Your task to perform on an android device: Turn off the flashlight Image 0: 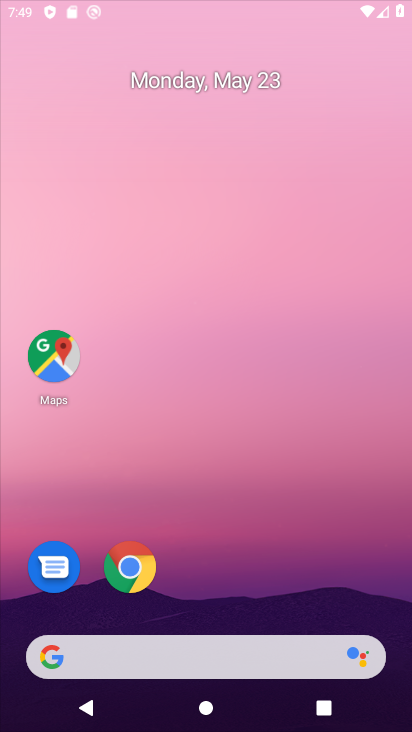
Step 0: drag from (280, 35) to (250, 13)
Your task to perform on an android device: Turn off the flashlight Image 1: 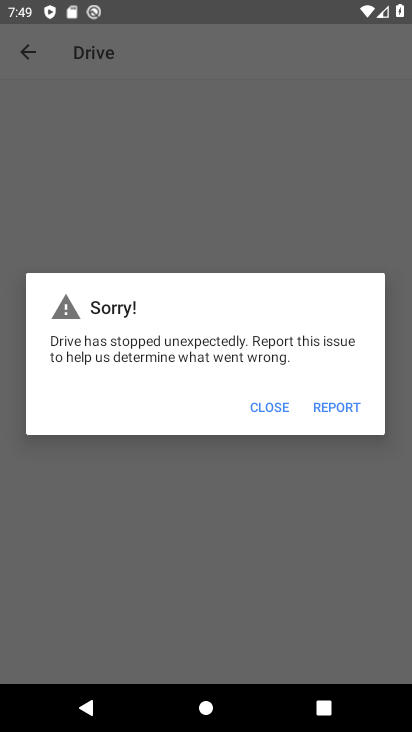
Step 1: press home button
Your task to perform on an android device: Turn off the flashlight Image 2: 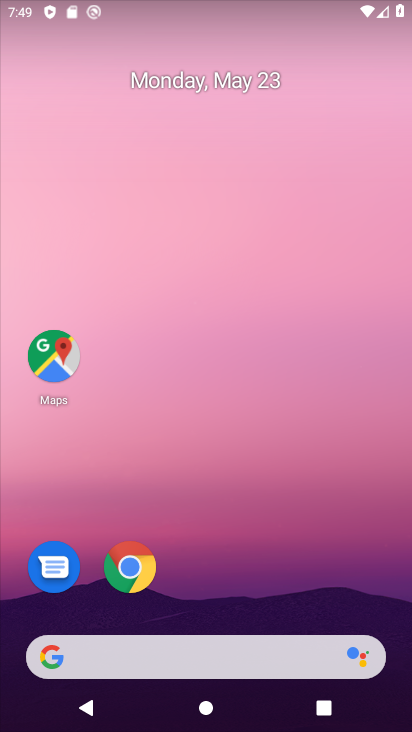
Step 2: drag from (218, 606) to (247, 1)
Your task to perform on an android device: Turn off the flashlight Image 3: 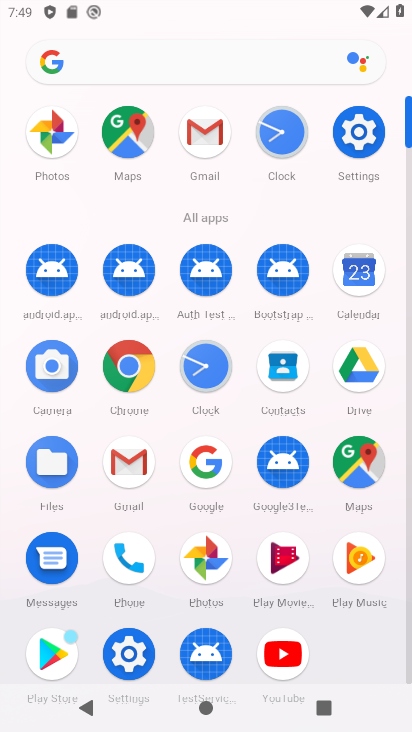
Step 3: click (342, 135)
Your task to perform on an android device: Turn off the flashlight Image 4: 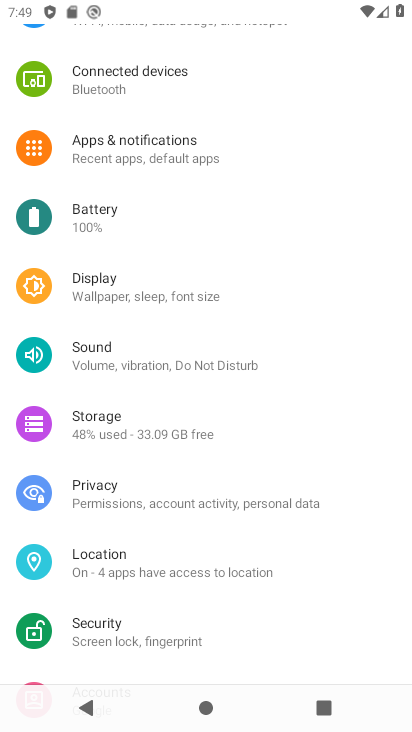
Step 4: drag from (196, 99) to (201, 462)
Your task to perform on an android device: Turn off the flashlight Image 5: 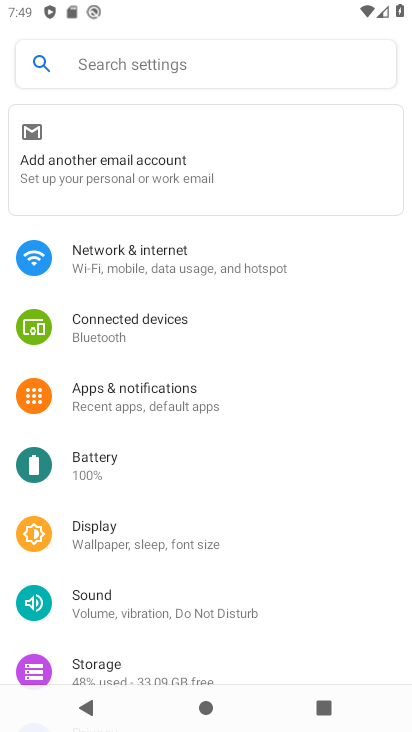
Step 5: click (188, 64)
Your task to perform on an android device: Turn off the flashlight Image 6: 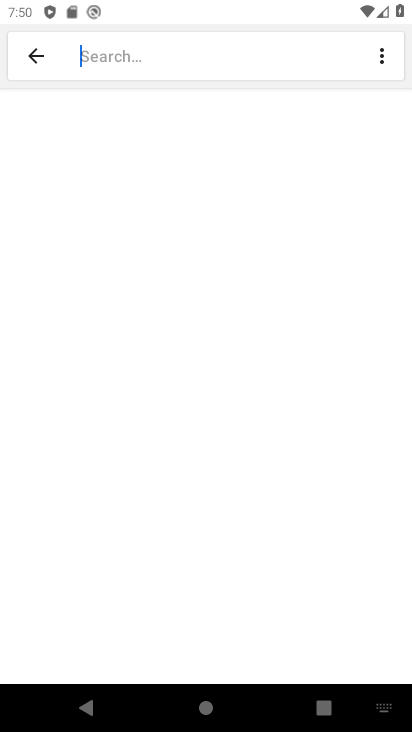
Step 6: type "flashlight"
Your task to perform on an android device: Turn off the flashlight Image 7: 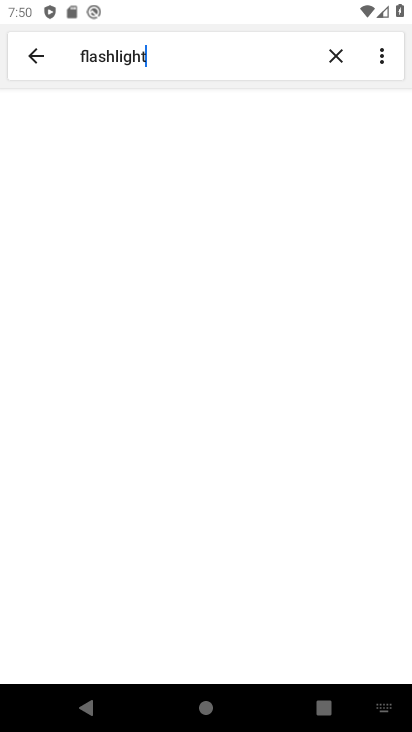
Step 7: click (142, 135)
Your task to perform on an android device: Turn off the flashlight Image 8: 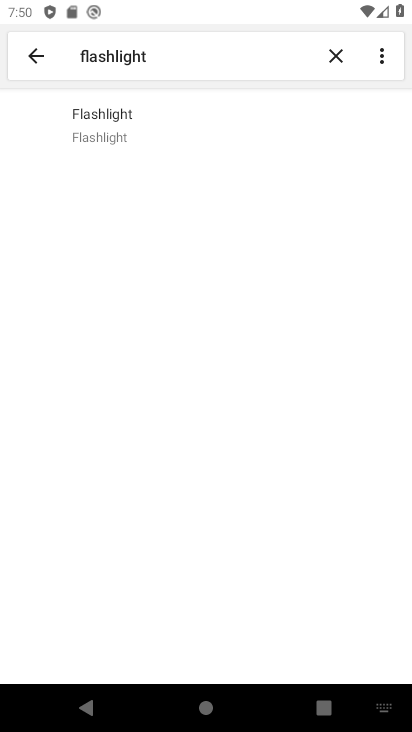
Step 8: click (142, 136)
Your task to perform on an android device: Turn off the flashlight Image 9: 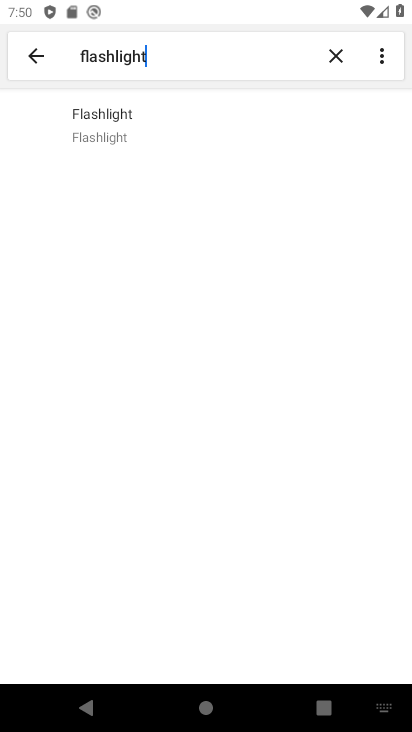
Step 9: click (142, 136)
Your task to perform on an android device: Turn off the flashlight Image 10: 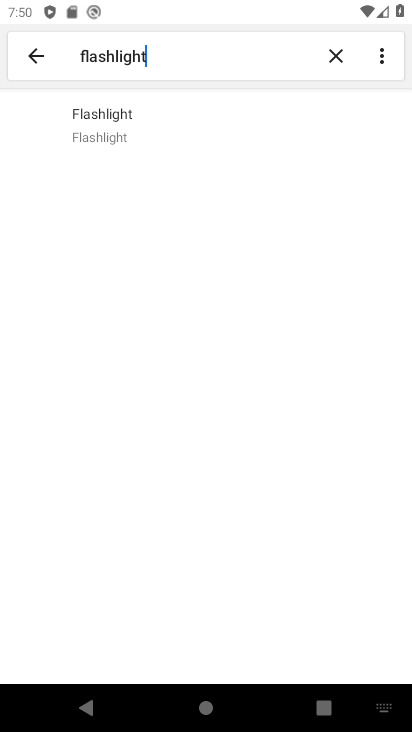
Step 10: click (99, 143)
Your task to perform on an android device: Turn off the flashlight Image 11: 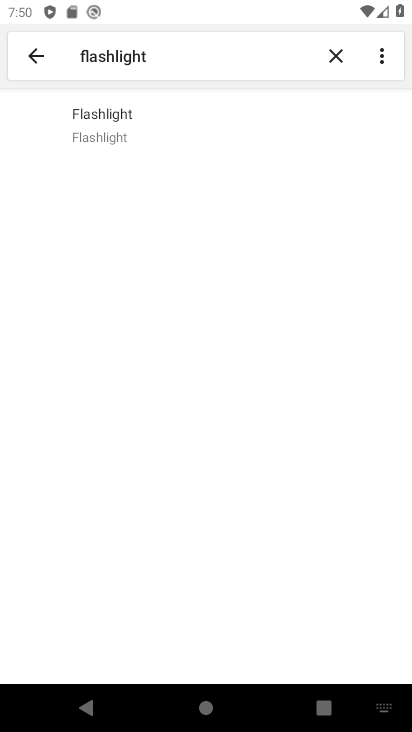
Step 11: task complete